Your task to perform on an android device: Go to Yahoo.com Image 0: 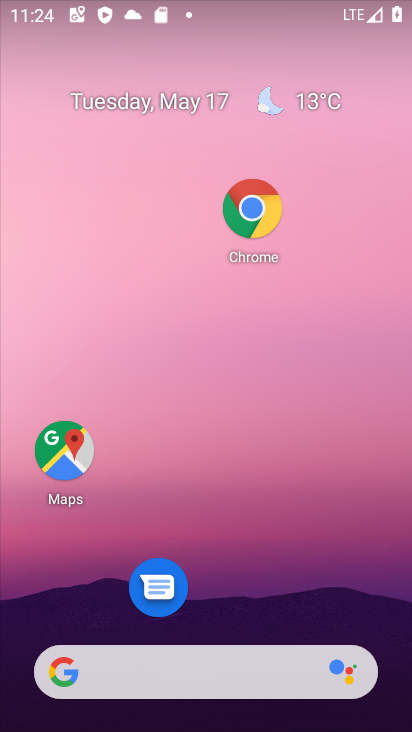
Step 0: click (259, 203)
Your task to perform on an android device: Go to Yahoo.com Image 1: 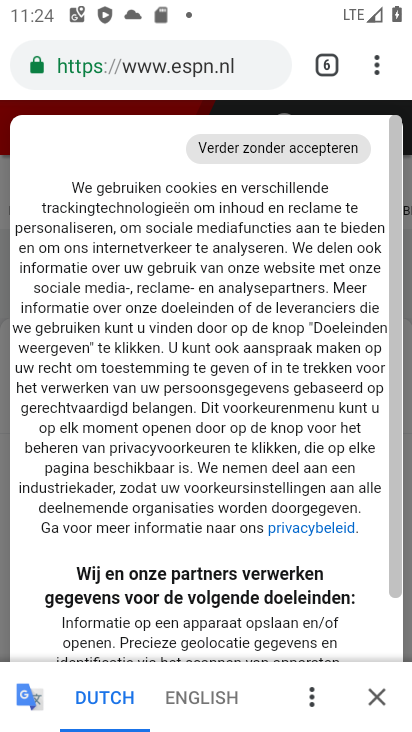
Step 1: click (320, 65)
Your task to perform on an android device: Go to Yahoo.com Image 2: 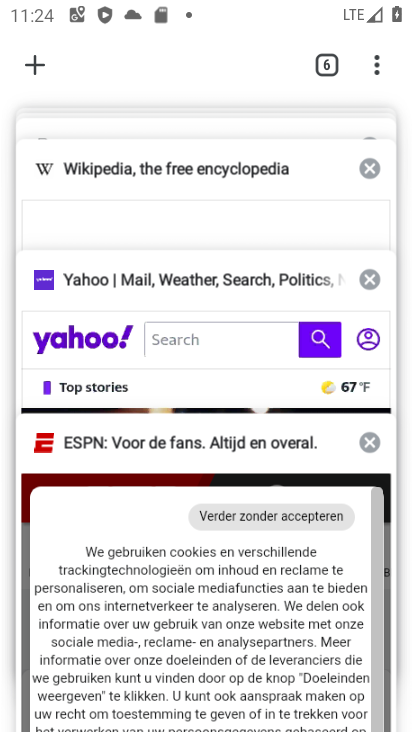
Step 2: click (221, 273)
Your task to perform on an android device: Go to Yahoo.com Image 3: 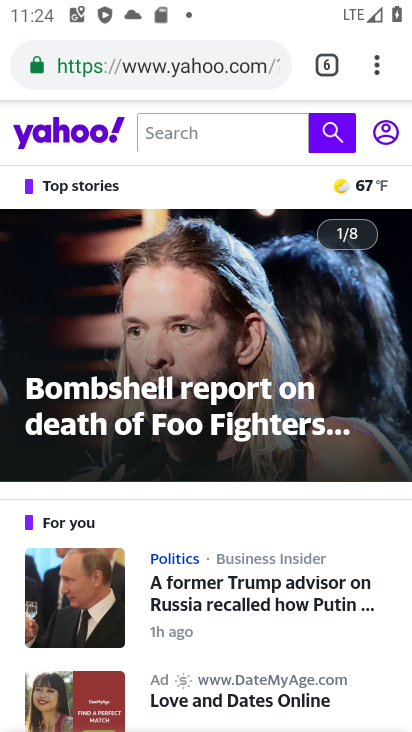
Step 3: task complete